Your task to perform on an android device: allow cookies in the chrome app Image 0: 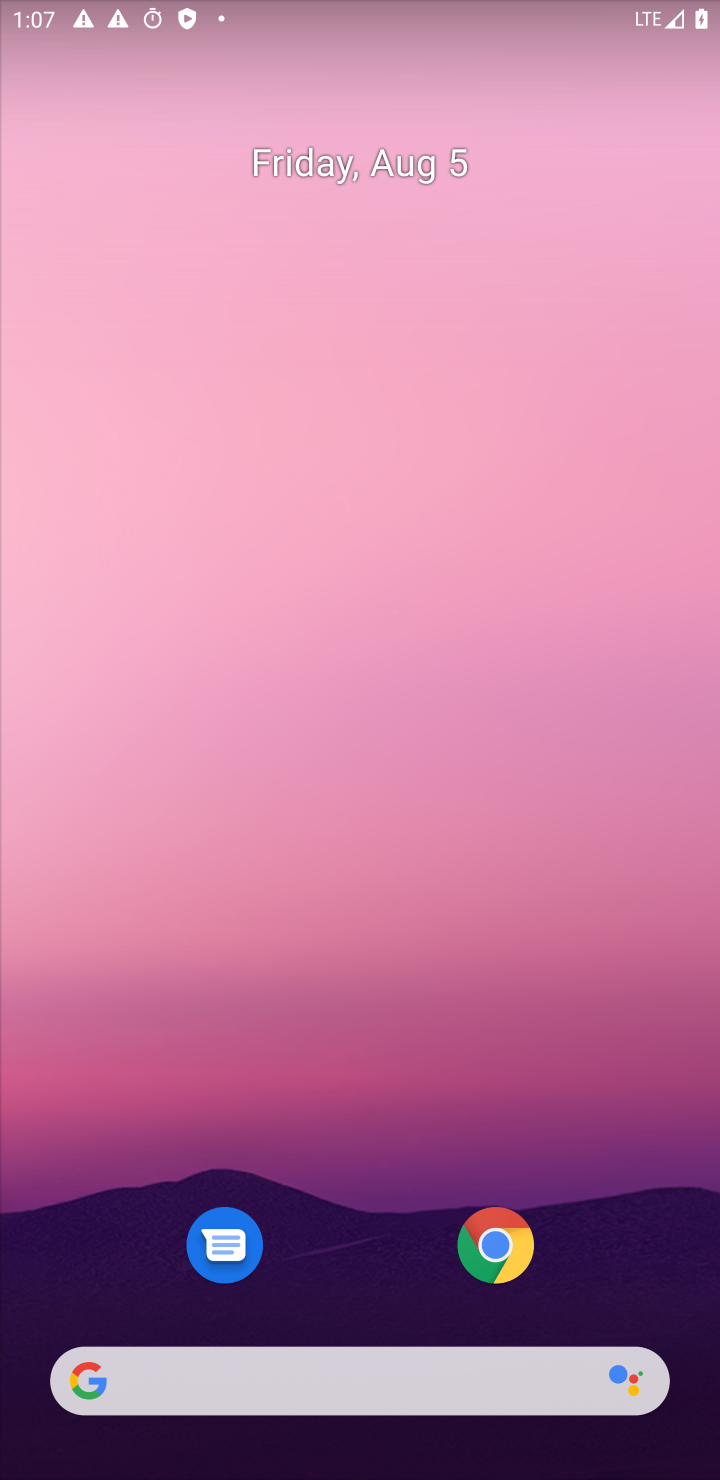
Step 0: press home button
Your task to perform on an android device: allow cookies in the chrome app Image 1: 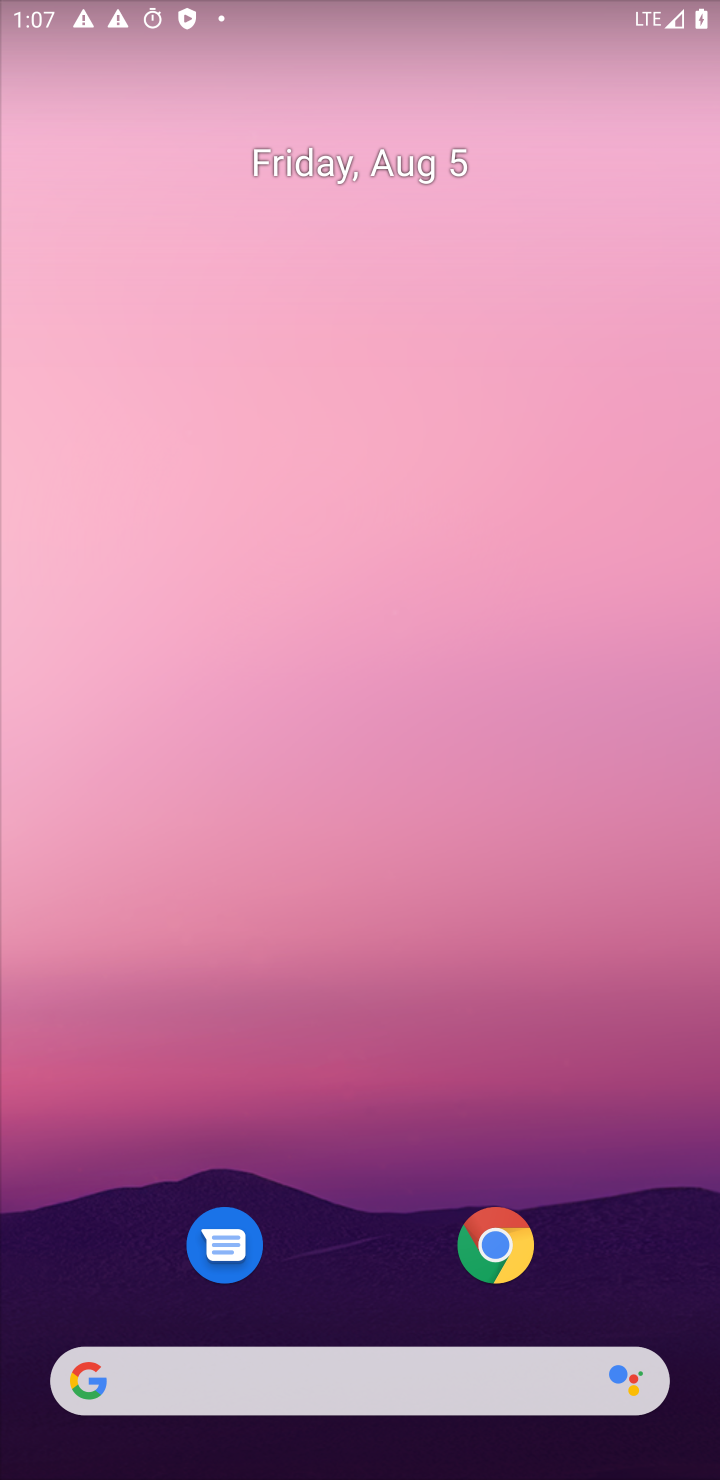
Step 1: drag from (399, 503) to (393, 373)
Your task to perform on an android device: allow cookies in the chrome app Image 2: 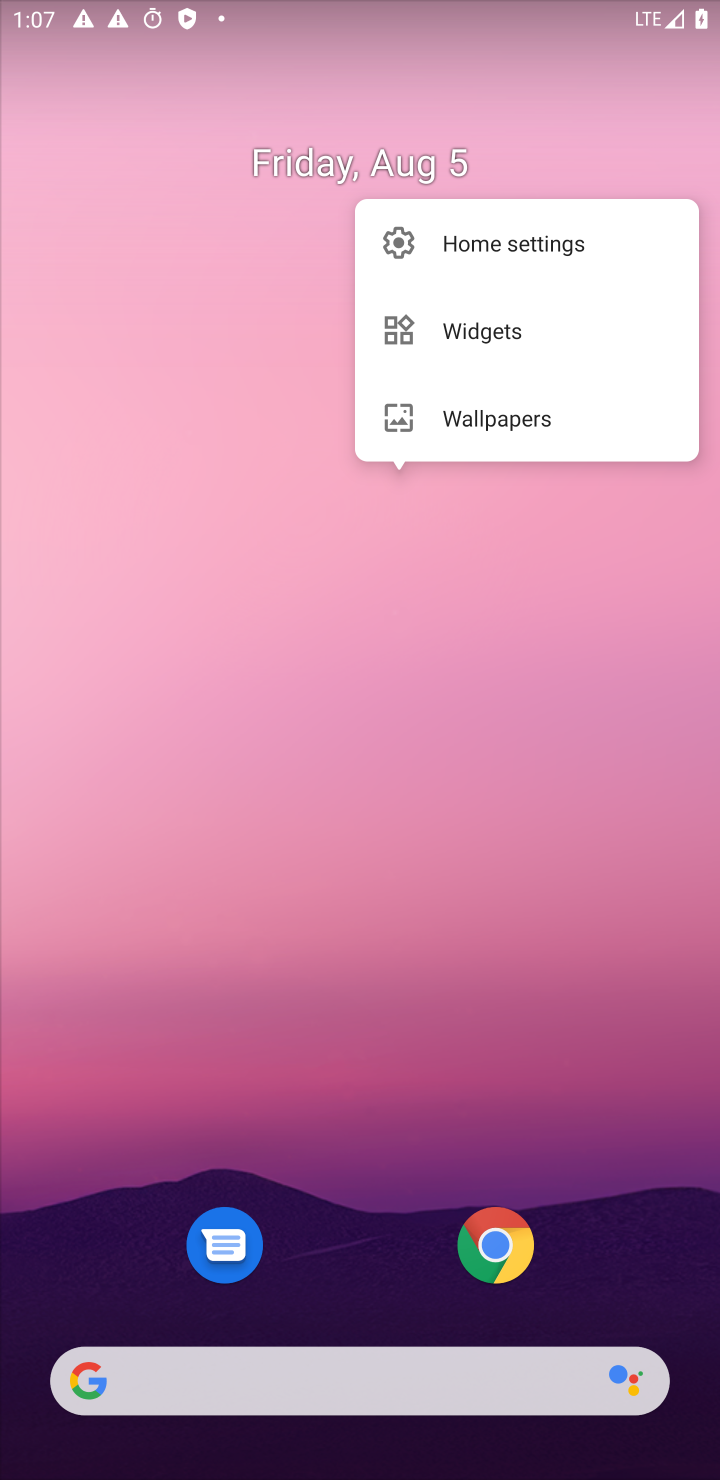
Step 2: drag from (374, 1308) to (294, 134)
Your task to perform on an android device: allow cookies in the chrome app Image 3: 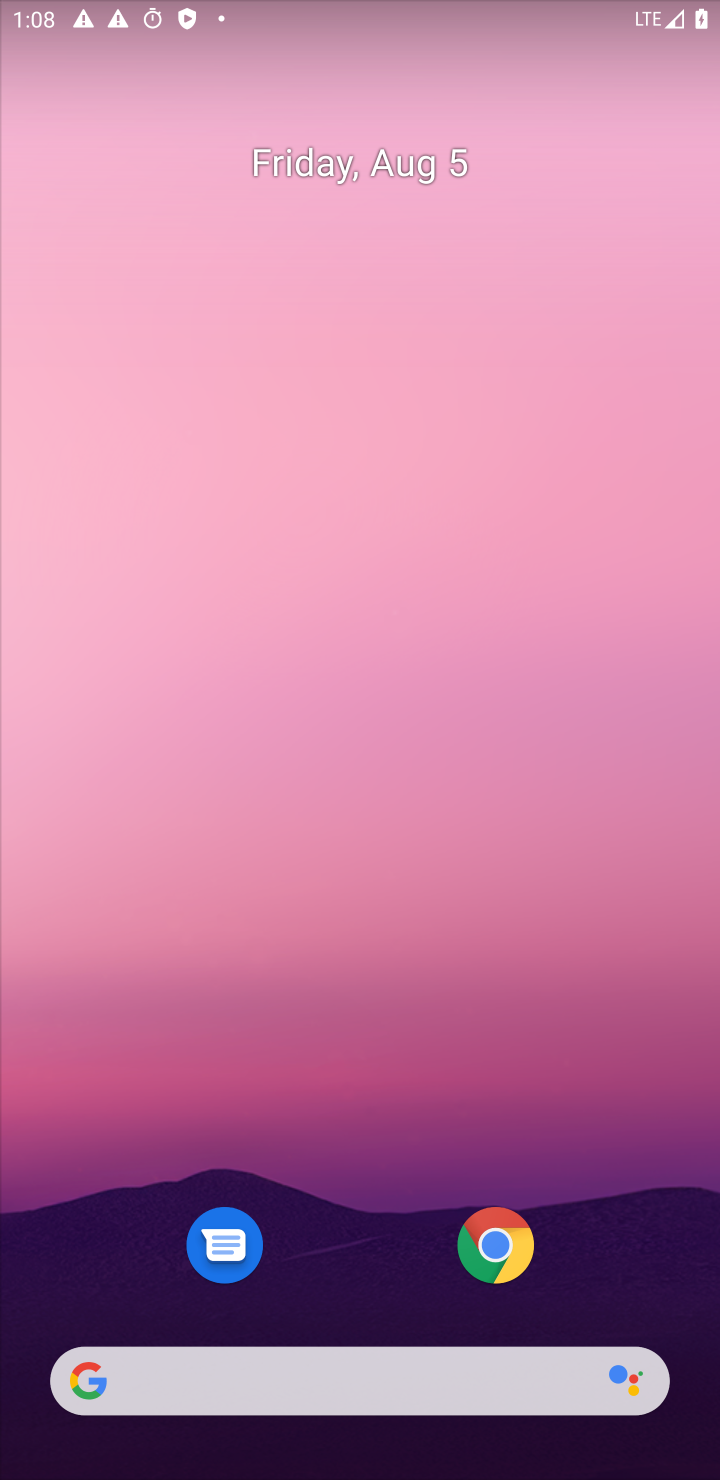
Step 3: drag from (379, 839) to (444, 347)
Your task to perform on an android device: allow cookies in the chrome app Image 4: 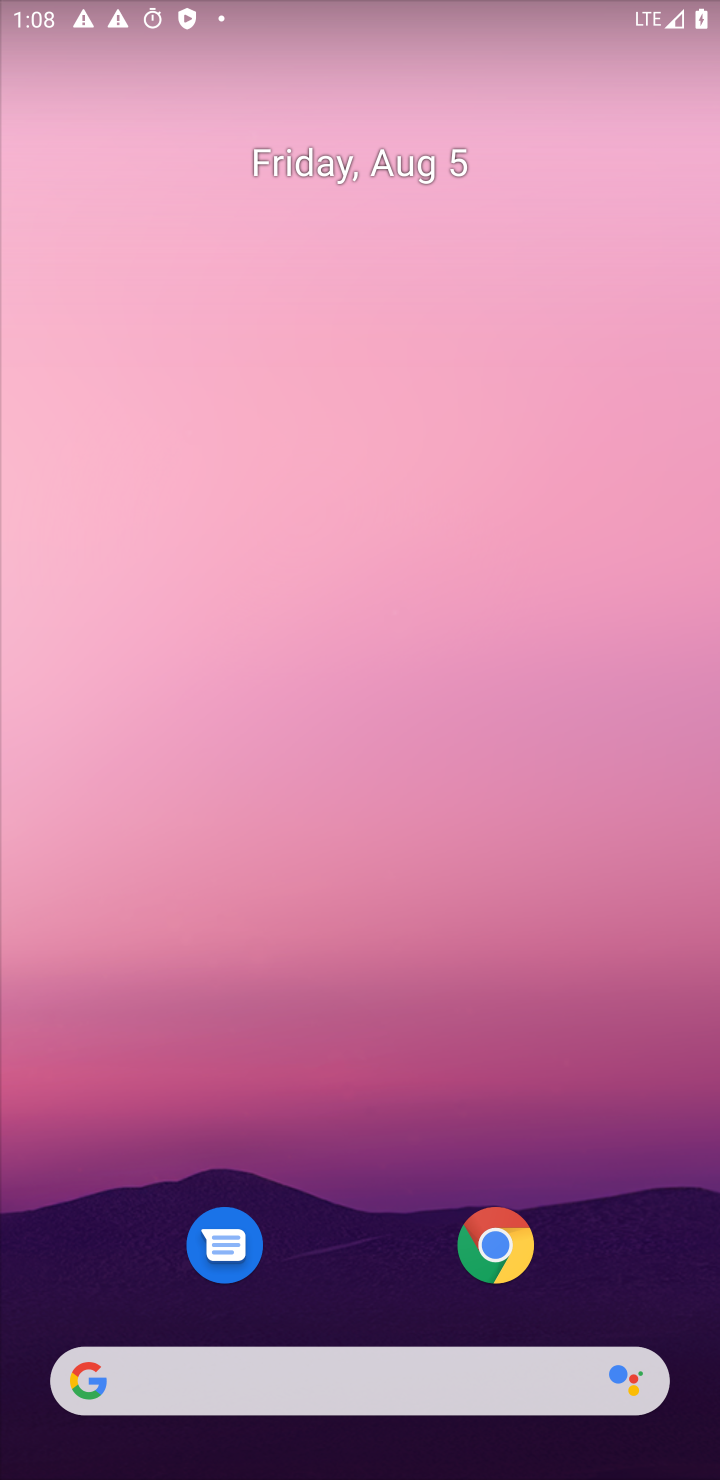
Step 4: drag from (367, 1106) to (390, 272)
Your task to perform on an android device: allow cookies in the chrome app Image 5: 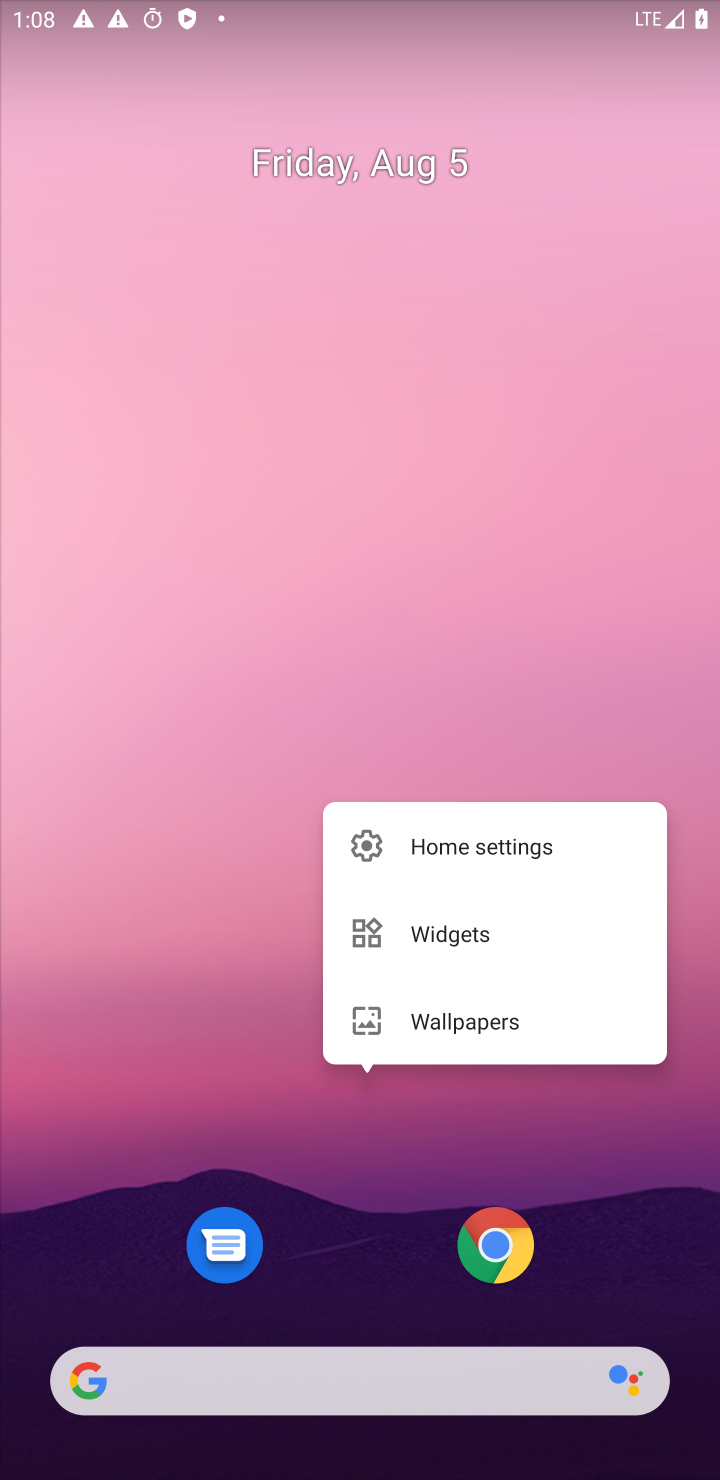
Step 5: click (330, 1223)
Your task to perform on an android device: allow cookies in the chrome app Image 6: 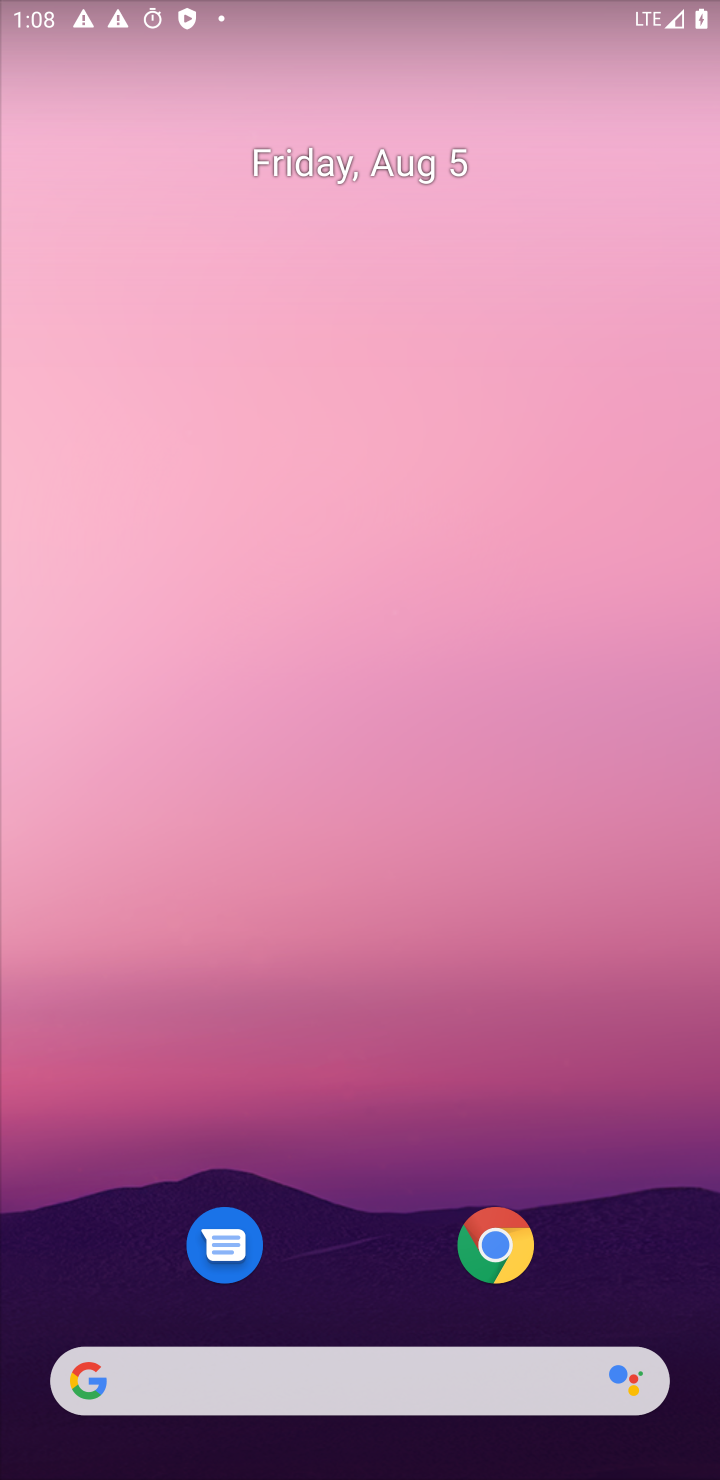
Step 6: drag from (422, 1301) to (455, 207)
Your task to perform on an android device: allow cookies in the chrome app Image 7: 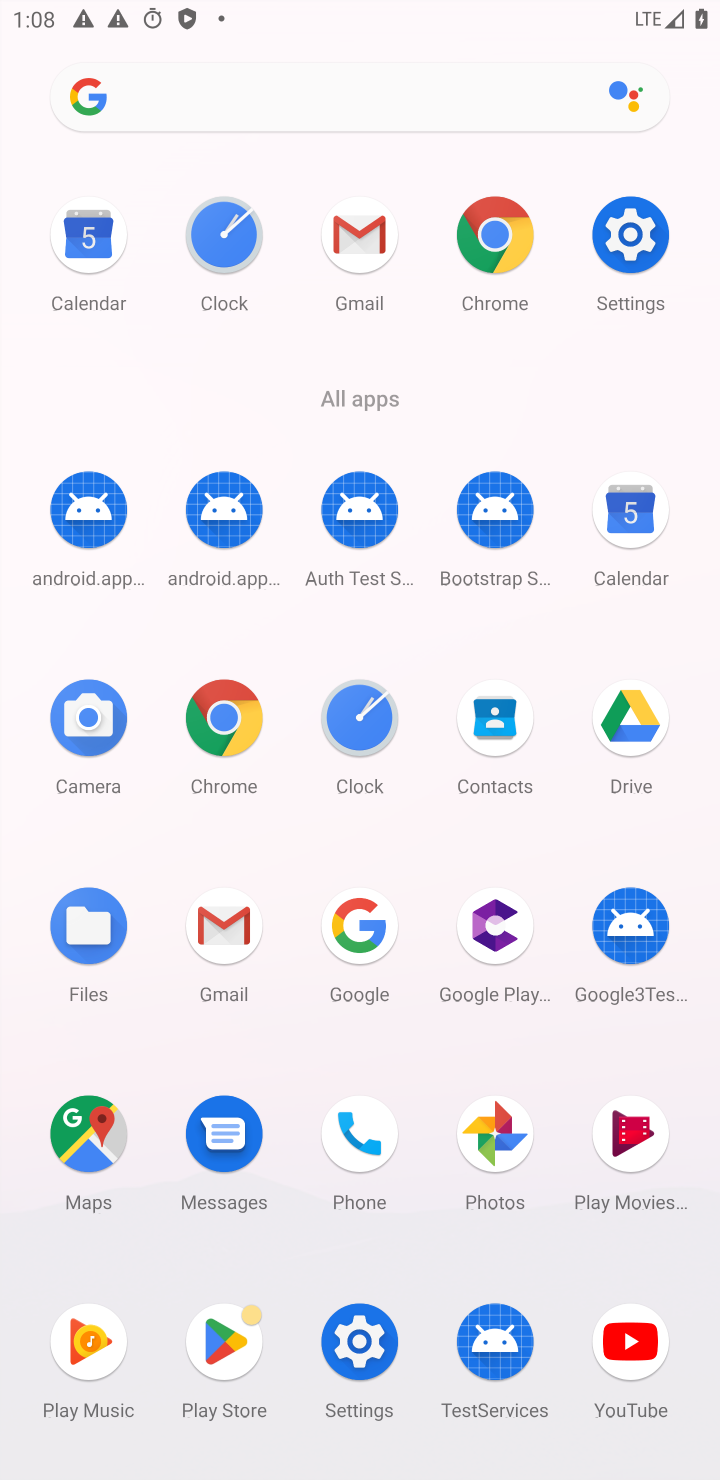
Step 7: click (511, 238)
Your task to perform on an android device: allow cookies in the chrome app Image 8: 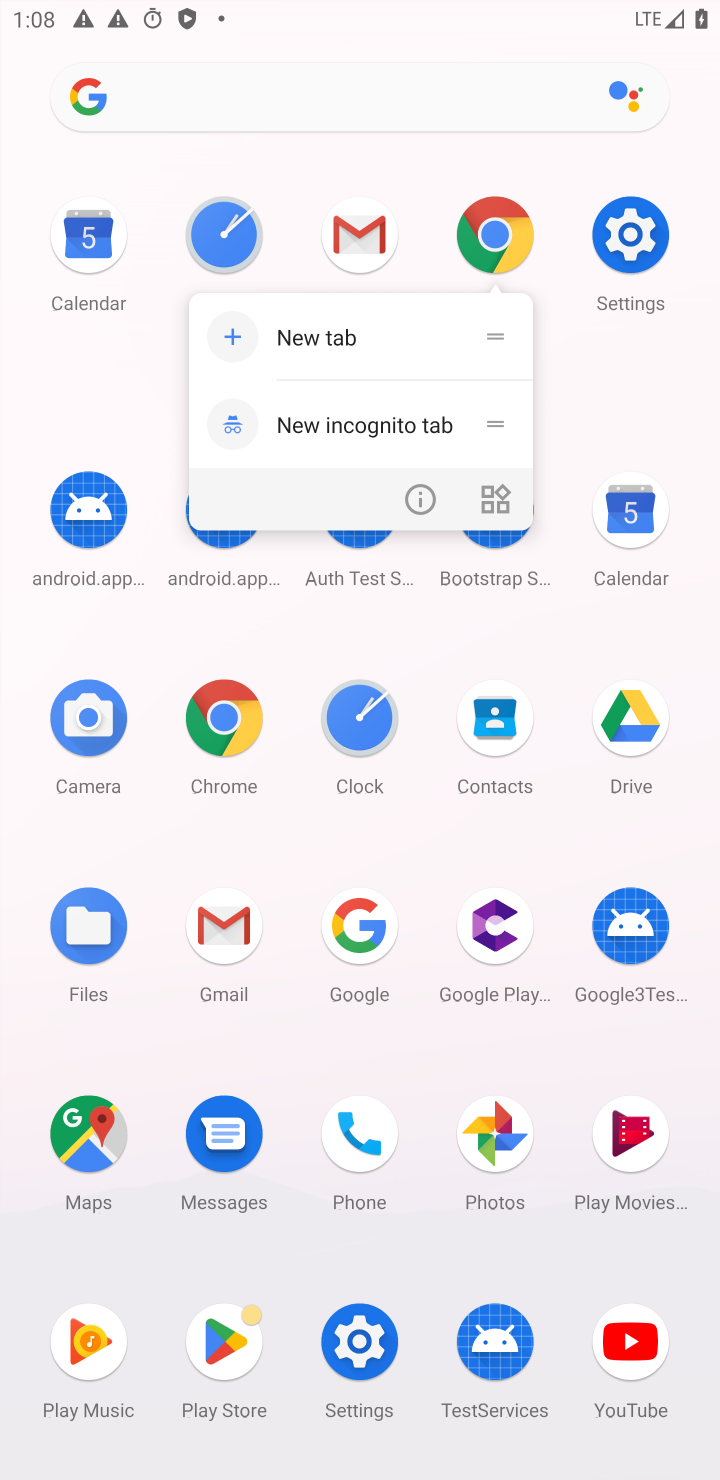
Step 8: click (511, 238)
Your task to perform on an android device: allow cookies in the chrome app Image 9: 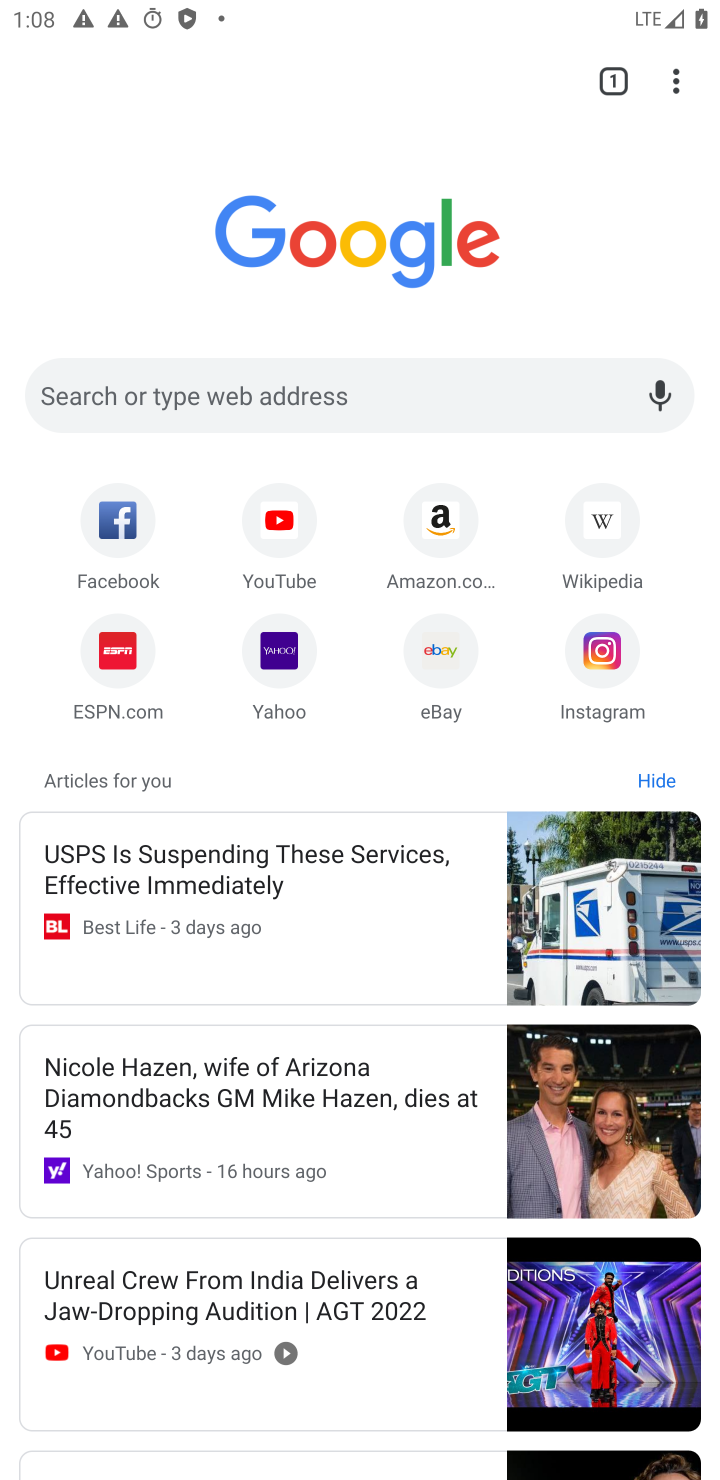
Step 9: drag from (685, 72) to (354, 782)
Your task to perform on an android device: allow cookies in the chrome app Image 10: 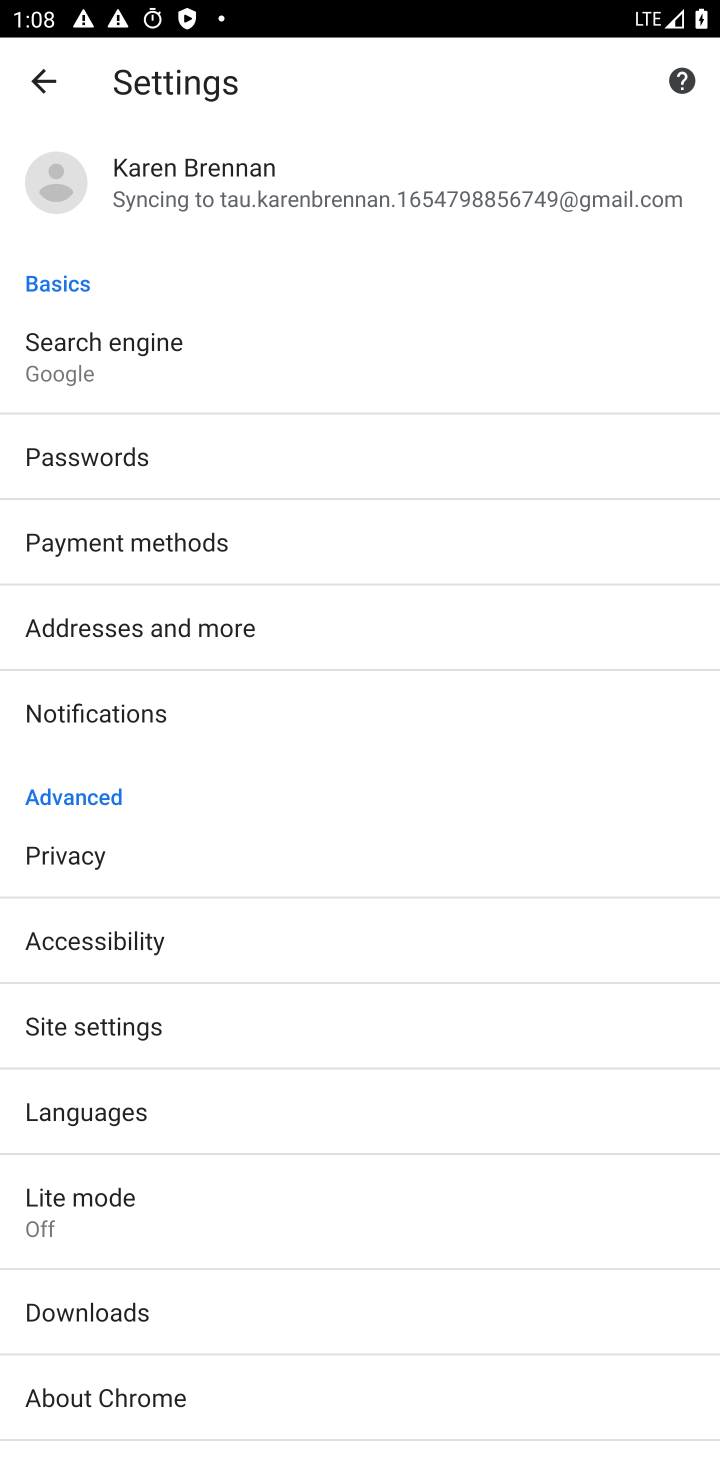
Step 10: click (86, 1029)
Your task to perform on an android device: allow cookies in the chrome app Image 11: 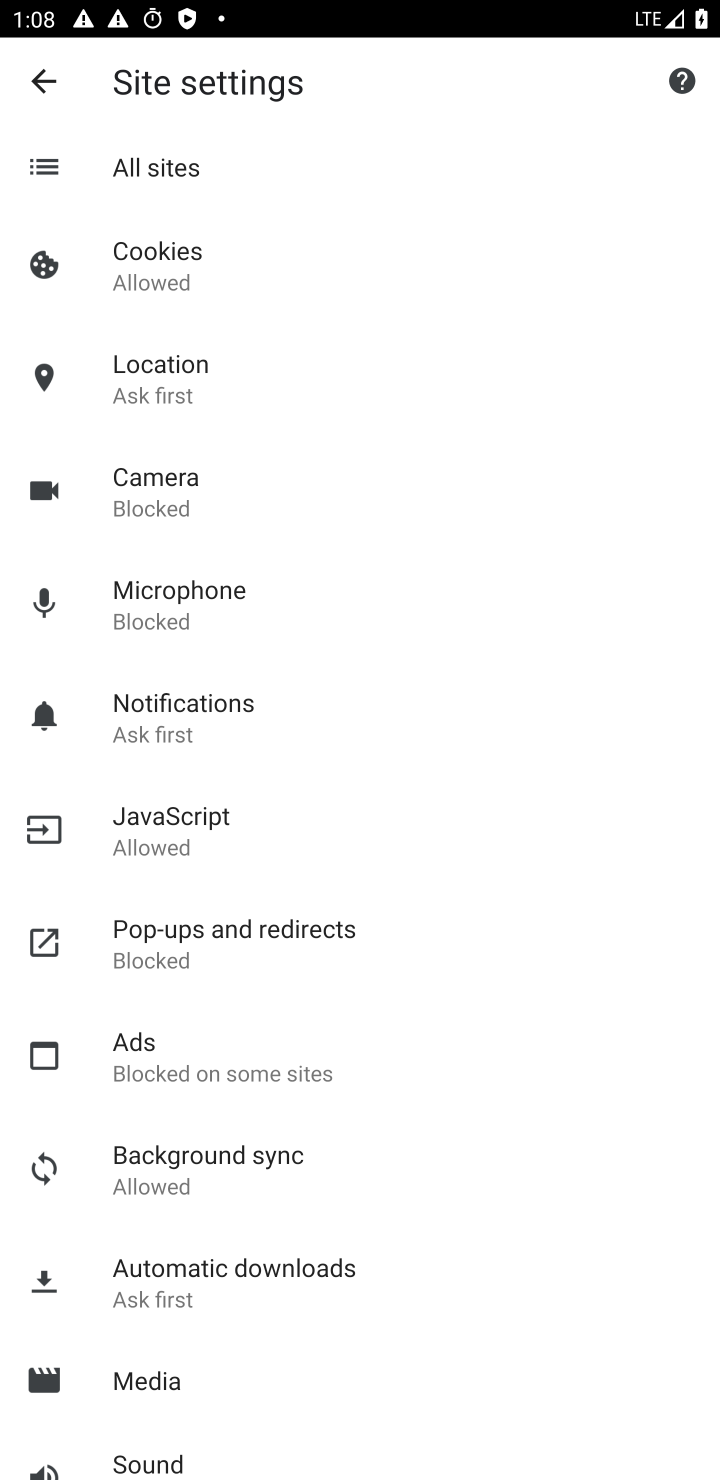
Step 11: click (156, 239)
Your task to perform on an android device: allow cookies in the chrome app Image 12: 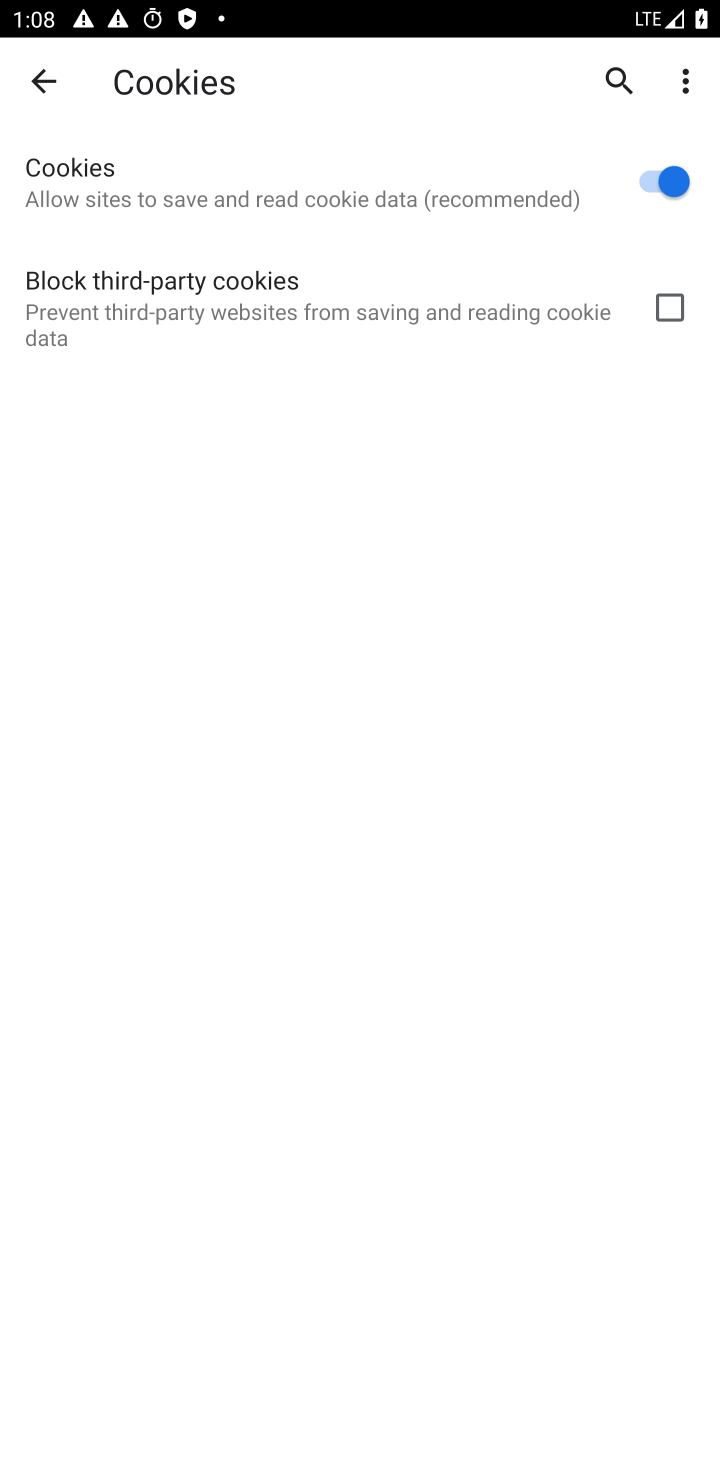
Step 12: task complete